Your task to perform on an android device: toggle translation in the chrome app Image 0: 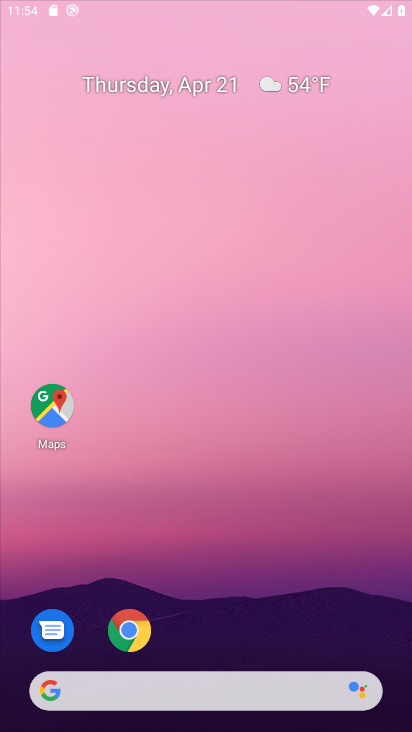
Step 0: drag from (190, 528) to (232, 335)
Your task to perform on an android device: toggle translation in the chrome app Image 1: 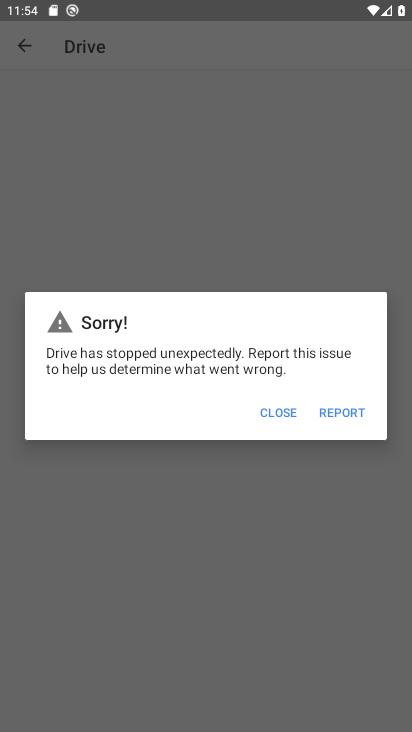
Step 1: click (279, 411)
Your task to perform on an android device: toggle translation in the chrome app Image 2: 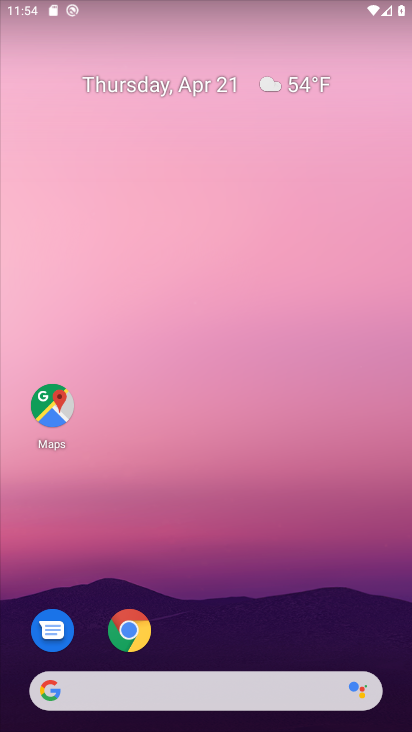
Step 2: drag from (193, 654) to (292, 270)
Your task to perform on an android device: toggle translation in the chrome app Image 3: 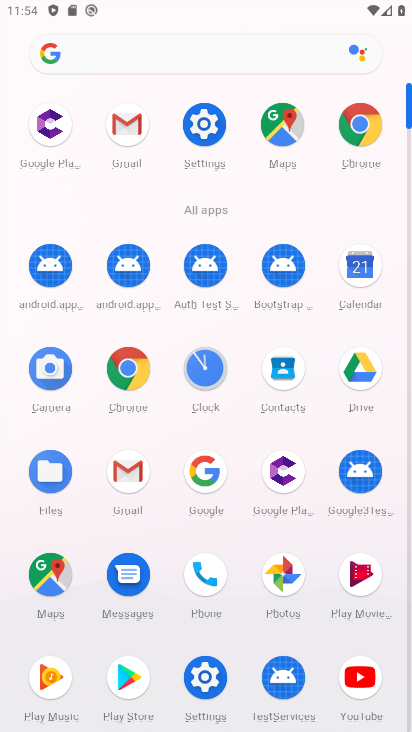
Step 3: click (365, 128)
Your task to perform on an android device: toggle translation in the chrome app Image 4: 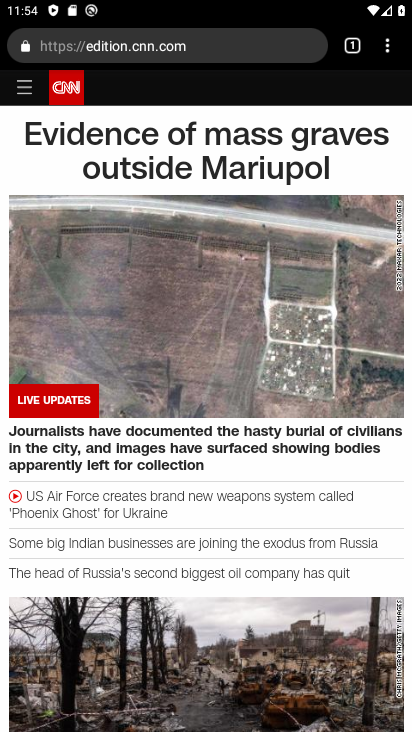
Step 4: click (392, 46)
Your task to perform on an android device: toggle translation in the chrome app Image 5: 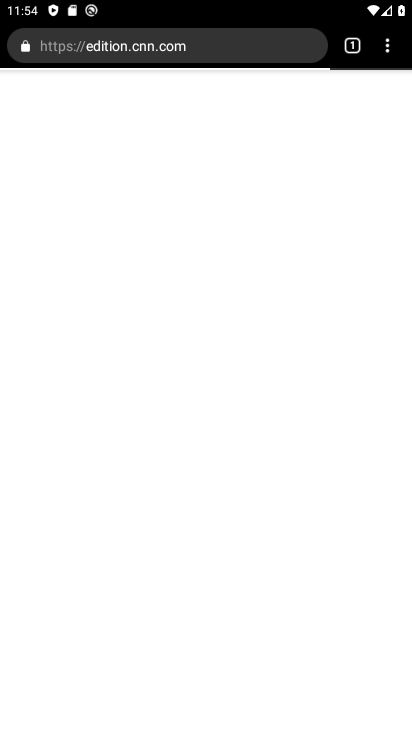
Step 5: click (378, 54)
Your task to perform on an android device: toggle translation in the chrome app Image 6: 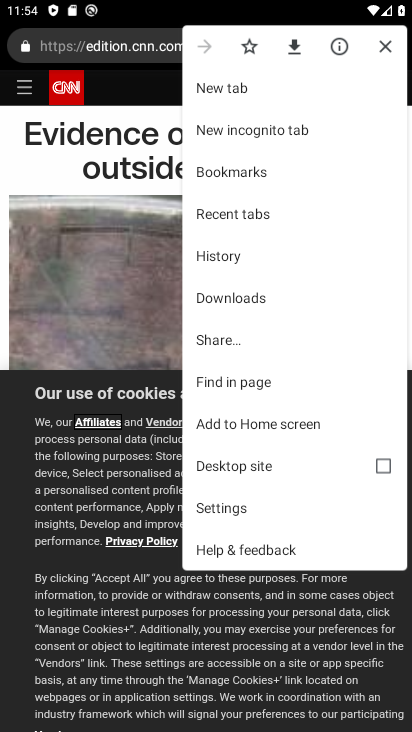
Step 6: click (223, 510)
Your task to perform on an android device: toggle translation in the chrome app Image 7: 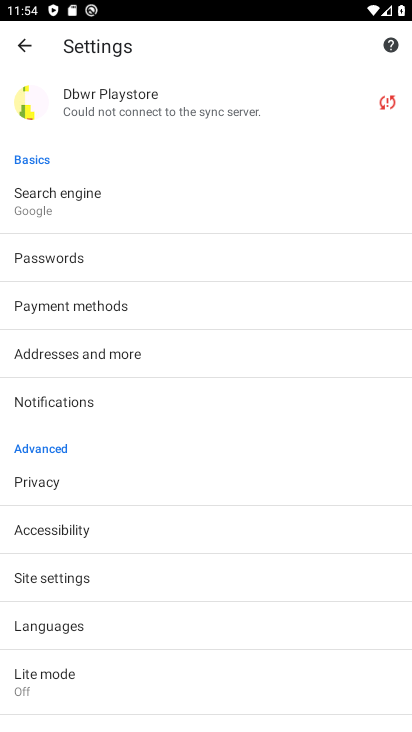
Step 7: click (59, 625)
Your task to perform on an android device: toggle translation in the chrome app Image 8: 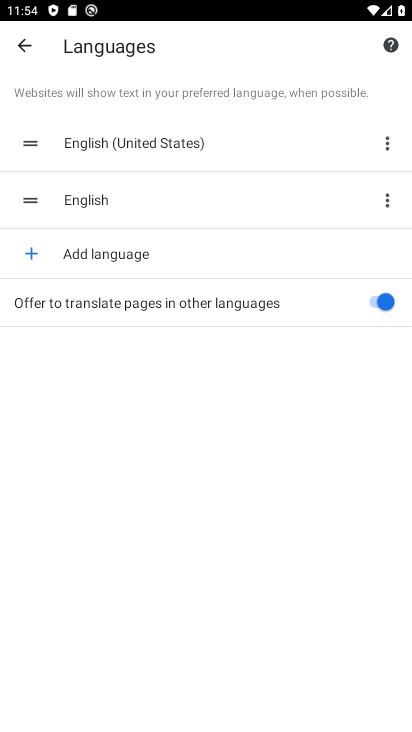
Step 8: click (378, 300)
Your task to perform on an android device: toggle translation in the chrome app Image 9: 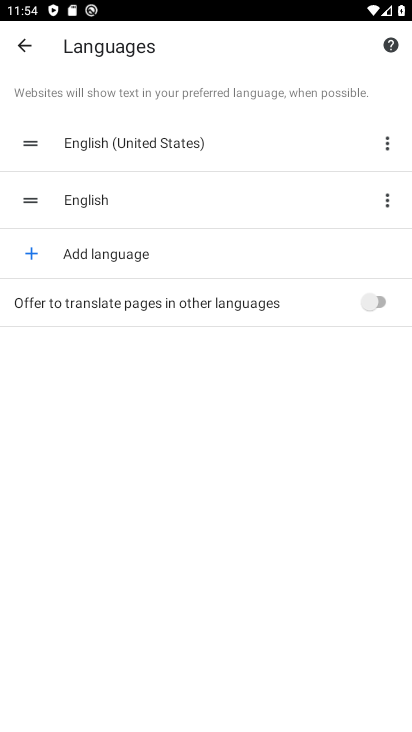
Step 9: task complete